Your task to perform on an android device: turn off data saver in the chrome app Image 0: 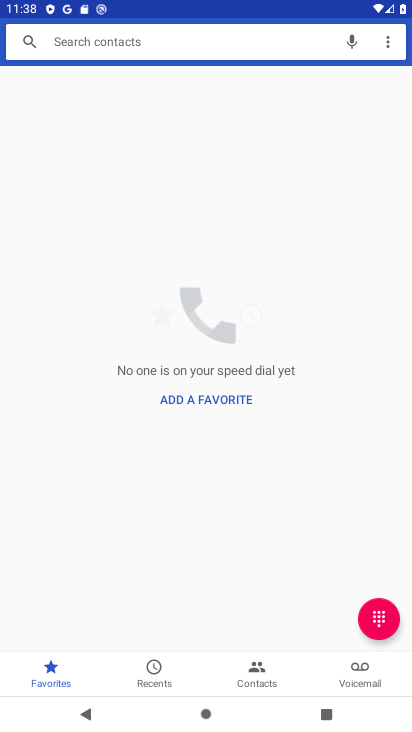
Step 0: press home button
Your task to perform on an android device: turn off data saver in the chrome app Image 1: 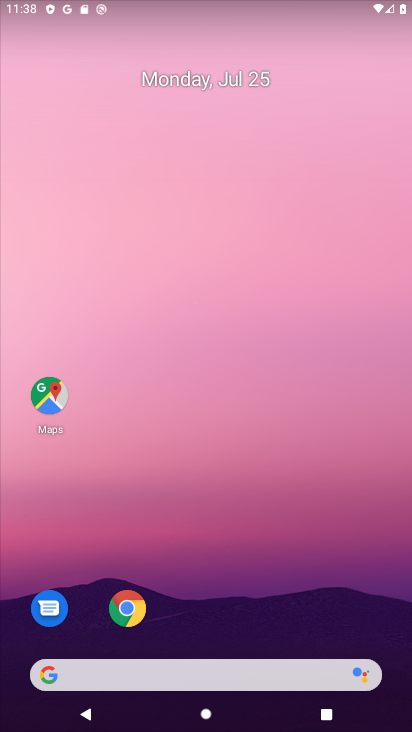
Step 1: drag from (198, 651) to (221, 86)
Your task to perform on an android device: turn off data saver in the chrome app Image 2: 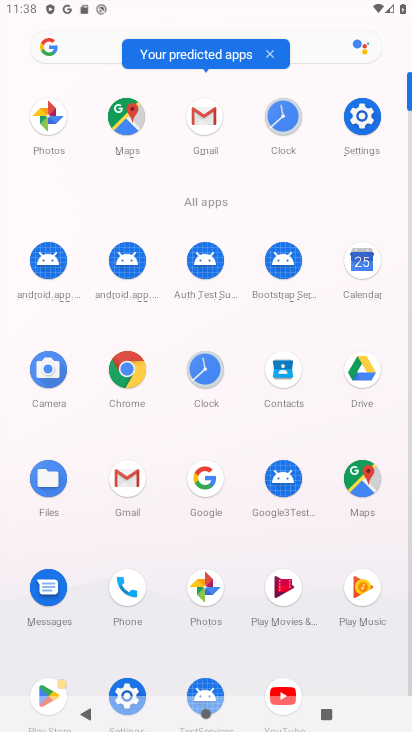
Step 2: click (128, 368)
Your task to perform on an android device: turn off data saver in the chrome app Image 3: 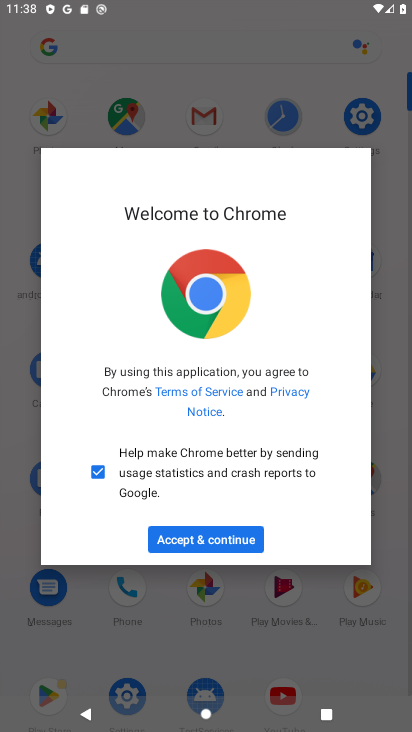
Step 3: click (200, 542)
Your task to perform on an android device: turn off data saver in the chrome app Image 4: 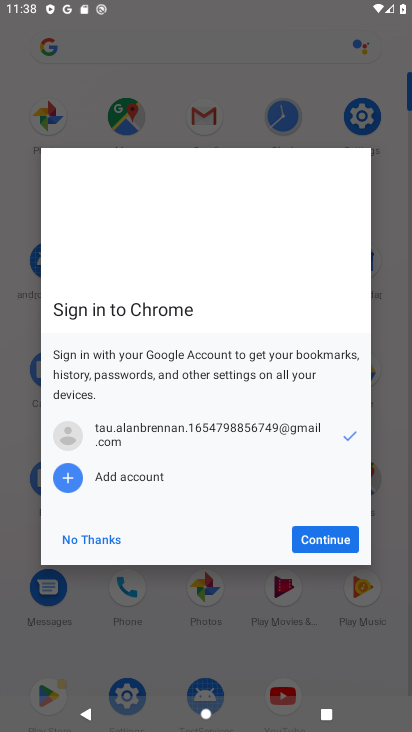
Step 4: click (329, 537)
Your task to perform on an android device: turn off data saver in the chrome app Image 5: 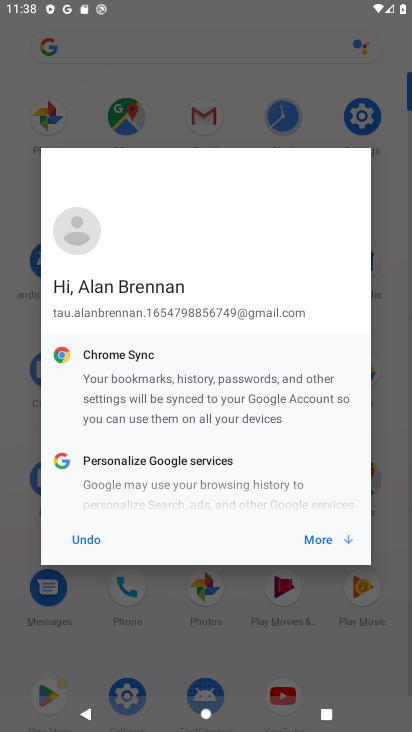
Step 5: click (320, 540)
Your task to perform on an android device: turn off data saver in the chrome app Image 6: 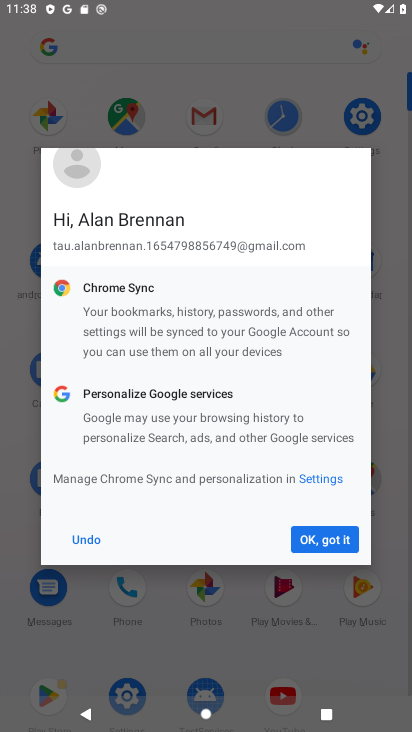
Step 6: click (320, 540)
Your task to perform on an android device: turn off data saver in the chrome app Image 7: 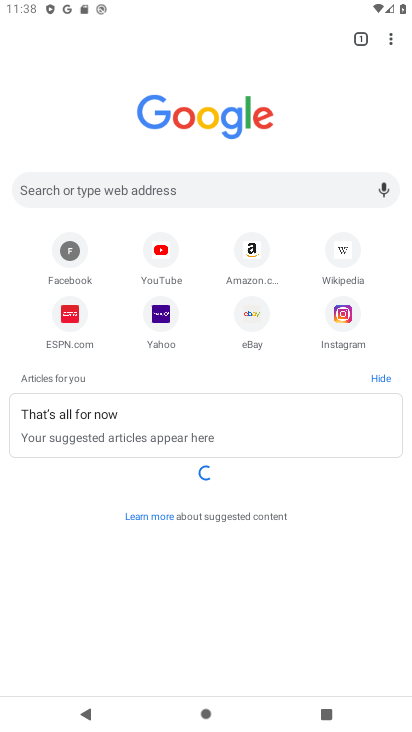
Step 7: click (389, 40)
Your task to perform on an android device: turn off data saver in the chrome app Image 8: 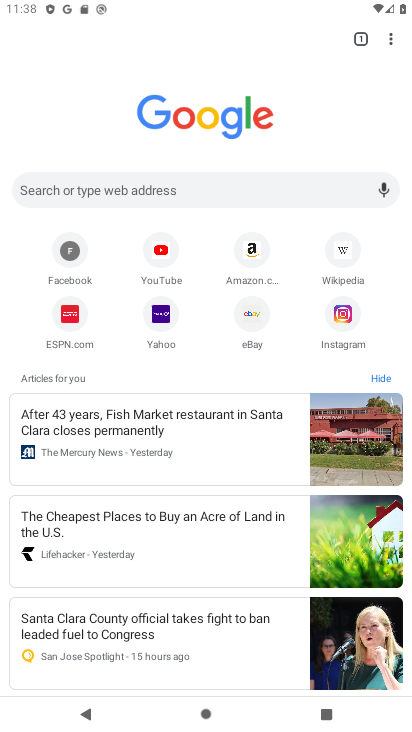
Step 8: click (391, 41)
Your task to perform on an android device: turn off data saver in the chrome app Image 9: 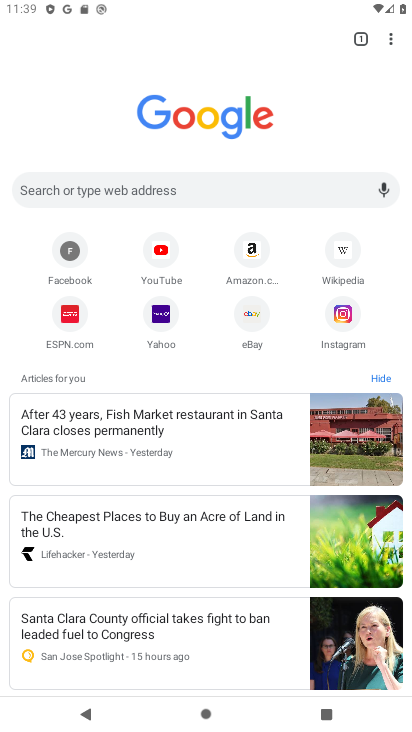
Step 9: click (391, 41)
Your task to perform on an android device: turn off data saver in the chrome app Image 10: 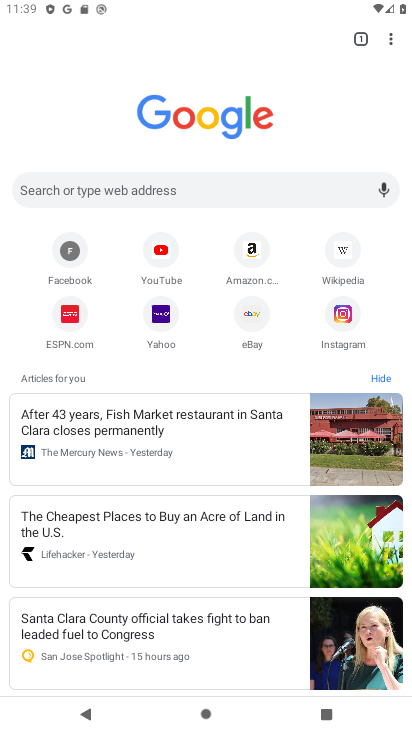
Step 10: click (391, 41)
Your task to perform on an android device: turn off data saver in the chrome app Image 11: 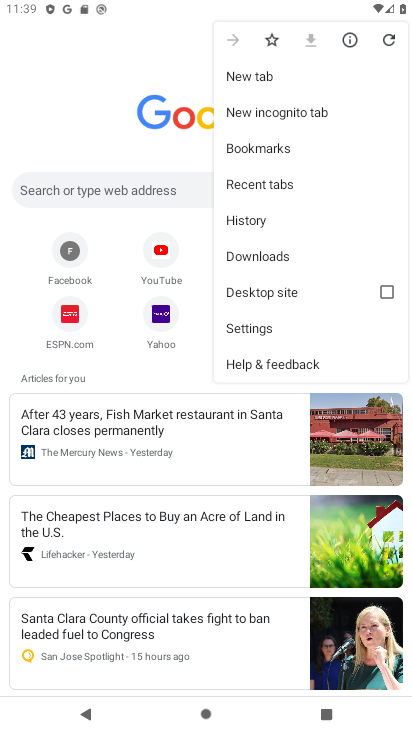
Step 11: click (254, 327)
Your task to perform on an android device: turn off data saver in the chrome app Image 12: 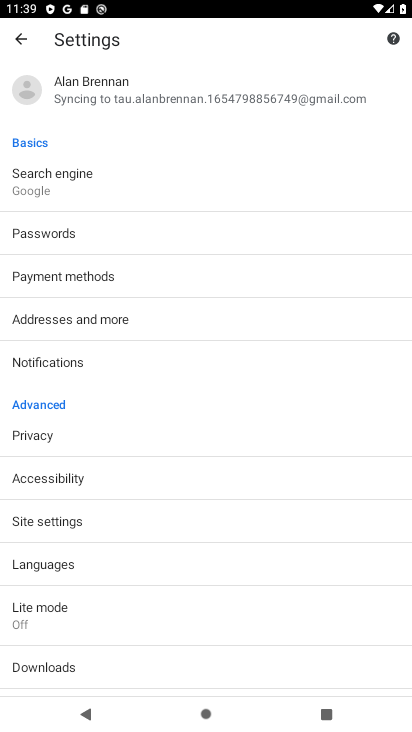
Step 12: drag from (74, 676) to (126, 260)
Your task to perform on an android device: turn off data saver in the chrome app Image 13: 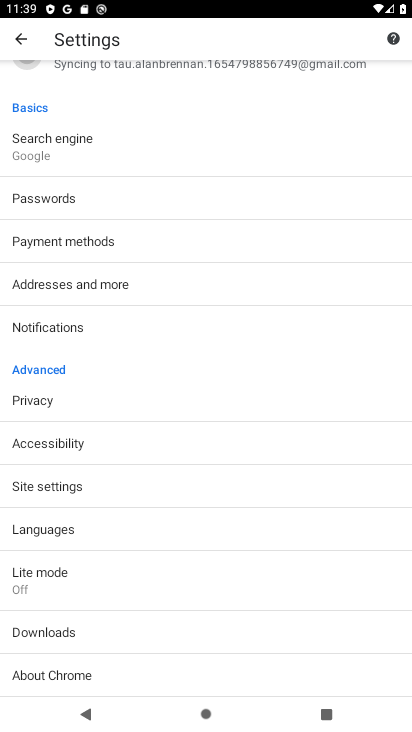
Step 13: click (66, 578)
Your task to perform on an android device: turn off data saver in the chrome app Image 14: 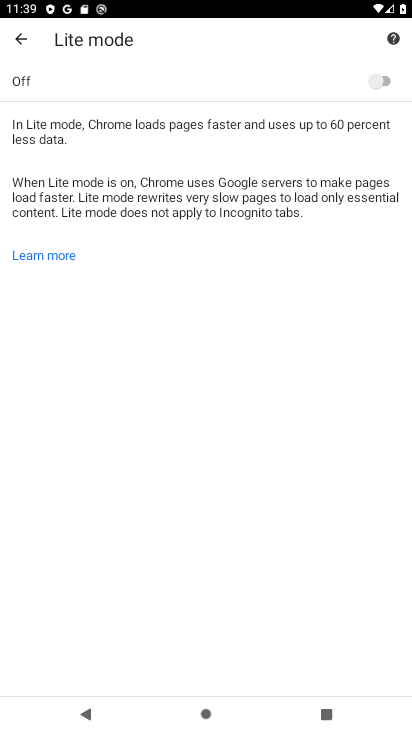
Step 14: task complete